Your task to perform on an android device: read, delete, or share a saved page in the chrome app Image 0: 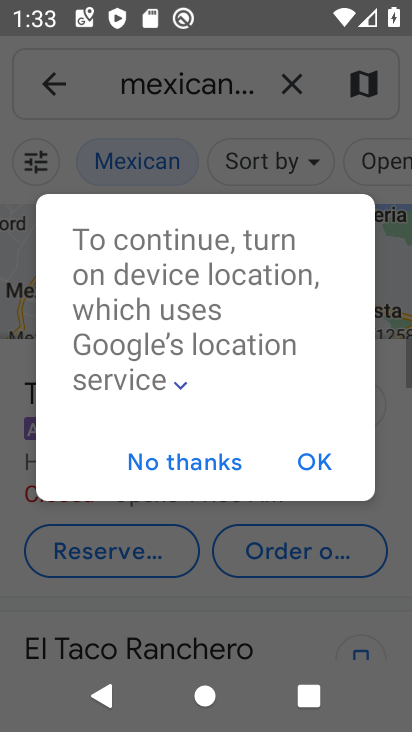
Step 0: press home button
Your task to perform on an android device: read, delete, or share a saved page in the chrome app Image 1: 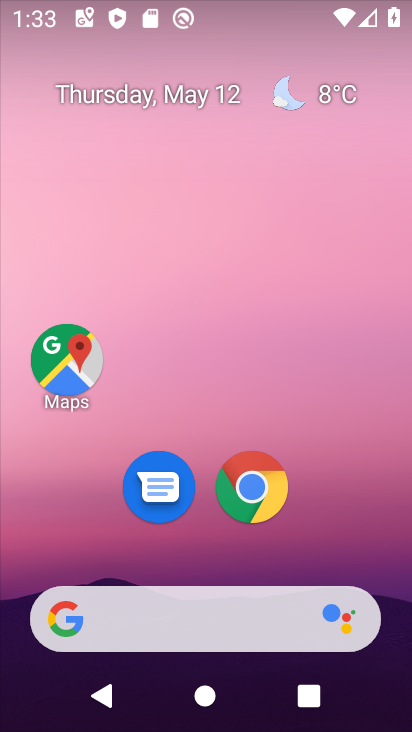
Step 1: click (237, 492)
Your task to perform on an android device: read, delete, or share a saved page in the chrome app Image 2: 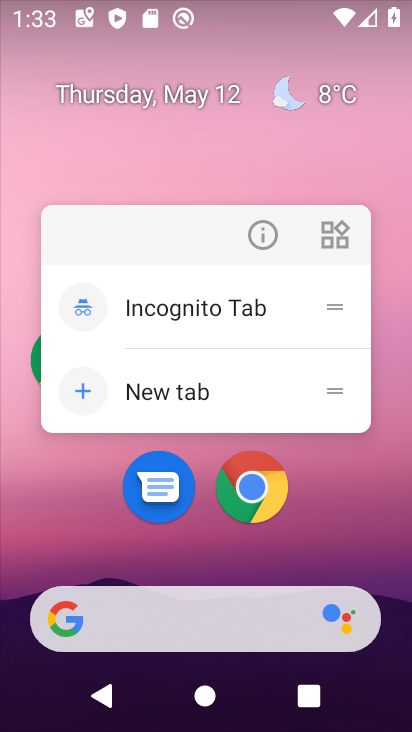
Step 2: click (239, 483)
Your task to perform on an android device: read, delete, or share a saved page in the chrome app Image 3: 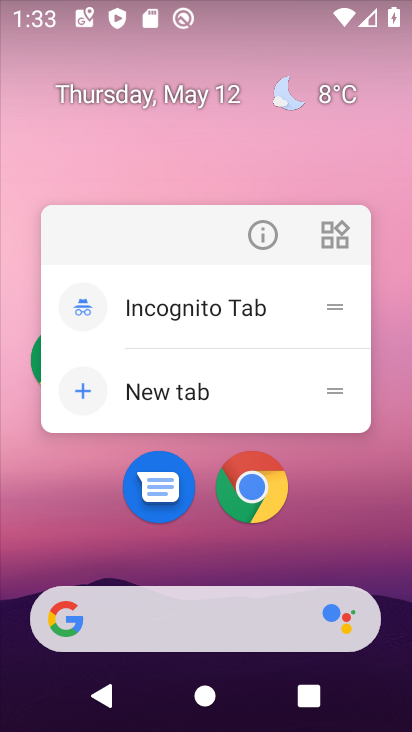
Step 3: click (249, 494)
Your task to perform on an android device: read, delete, or share a saved page in the chrome app Image 4: 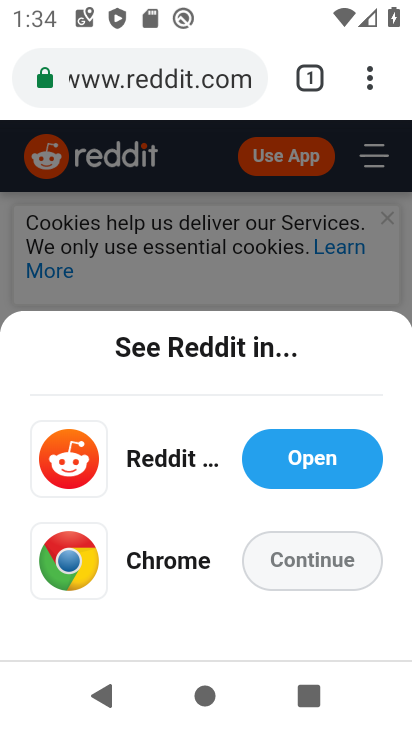
Step 4: click (373, 88)
Your task to perform on an android device: read, delete, or share a saved page in the chrome app Image 5: 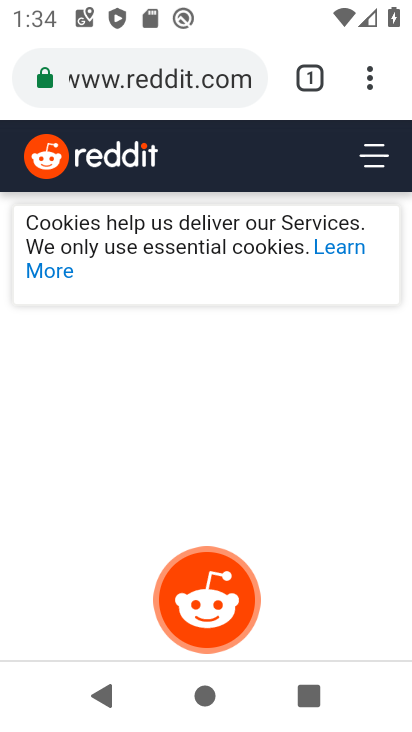
Step 5: click (373, 88)
Your task to perform on an android device: read, delete, or share a saved page in the chrome app Image 6: 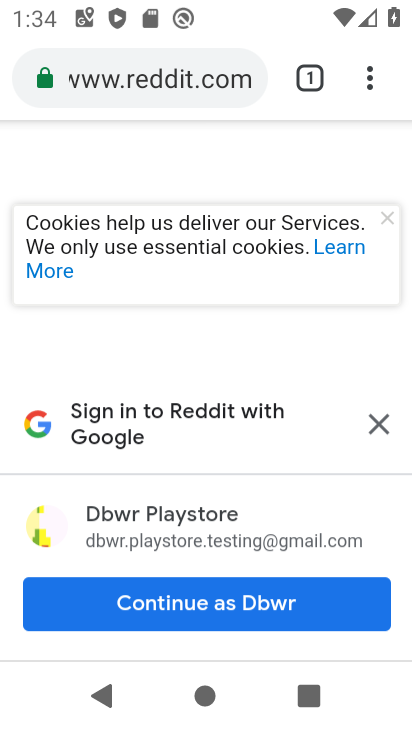
Step 6: click (374, 88)
Your task to perform on an android device: read, delete, or share a saved page in the chrome app Image 7: 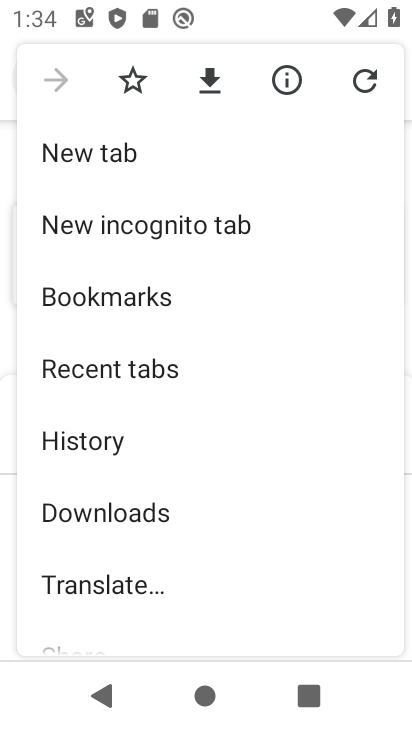
Step 7: drag from (297, 568) to (289, 225)
Your task to perform on an android device: read, delete, or share a saved page in the chrome app Image 8: 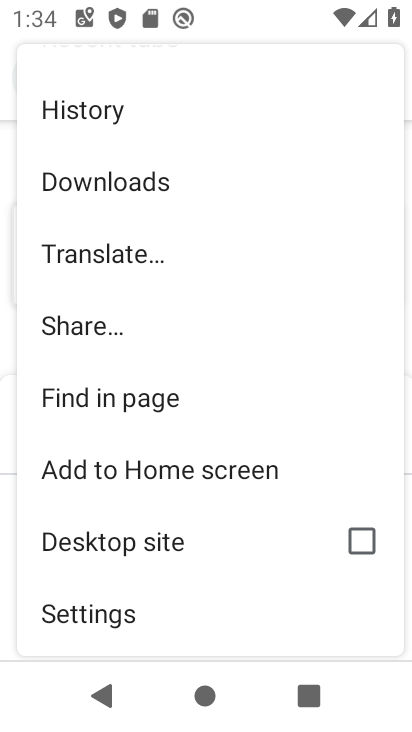
Step 8: click (110, 168)
Your task to perform on an android device: read, delete, or share a saved page in the chrome app Image 9: 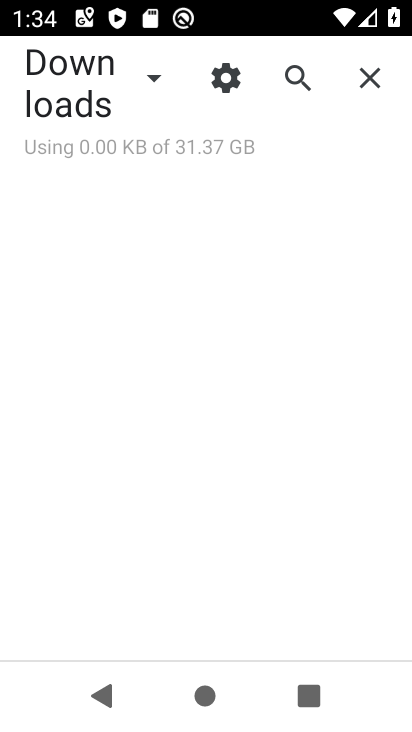
Step 9: click (153, 76)
Your task to perform on an android device: read, delete, or share a saved page in the chrome app Image 10: 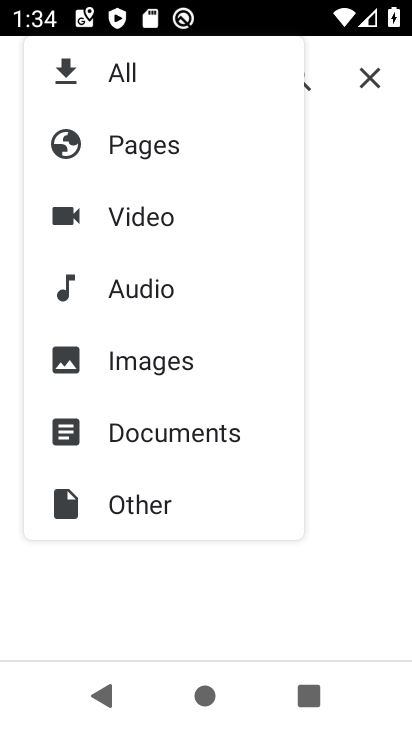
Step 10: click (166, 152)
Your task to perform on an android device: read, delete, or share a saved page in the chrome app Image 11: 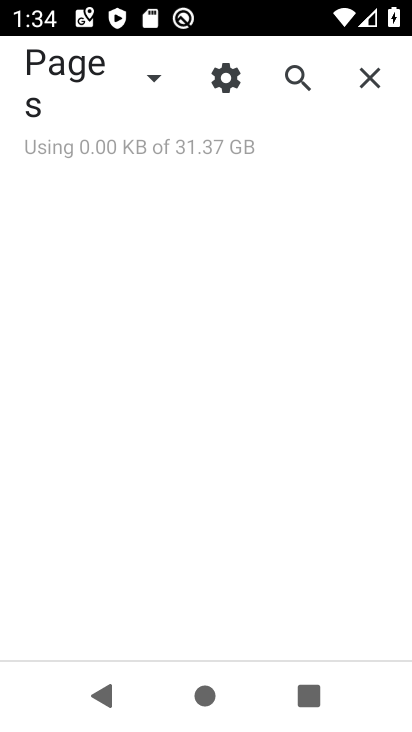
Step 11: task complete